Your task to perform on an android device: Open settings Image 0: 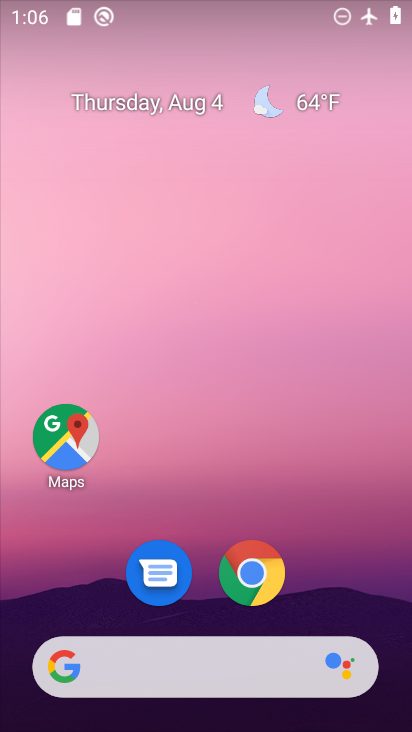
Step 0: drag from (325, 410) to (309, 138)
Your task to perform on an android device: Open settings Image 1: 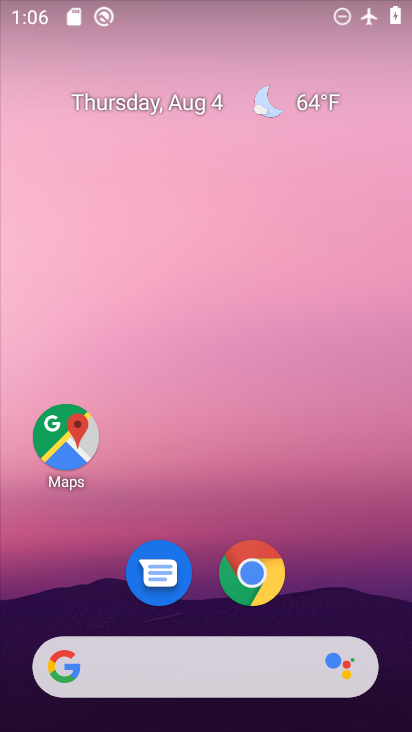
Step 1: drag from (323, 568) to (312, 184)
Your task to perform on an android device: Open settings Image 2: 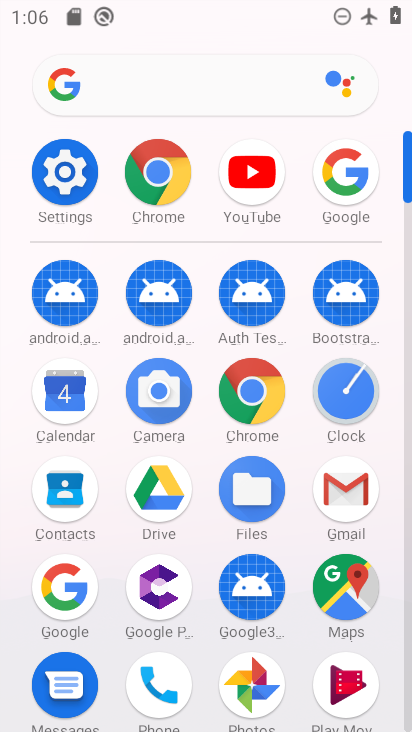
Step 2: click (78, 159)
Your task to perform on an android device: Open settings Image 3: 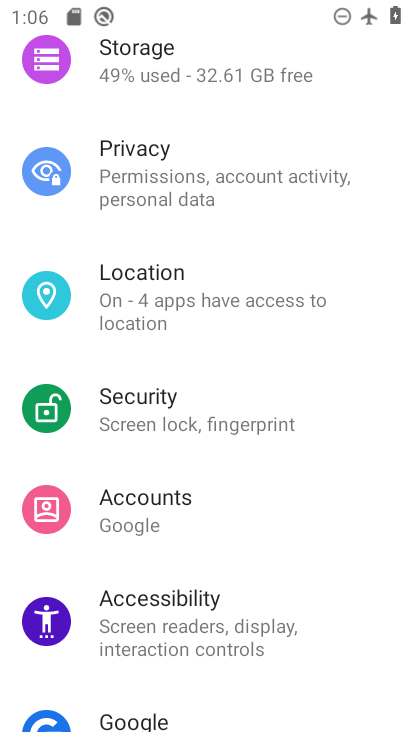
Step 3: task complete